Your task to perform on an android device: find snoozed emails in the gmail app Image 0: 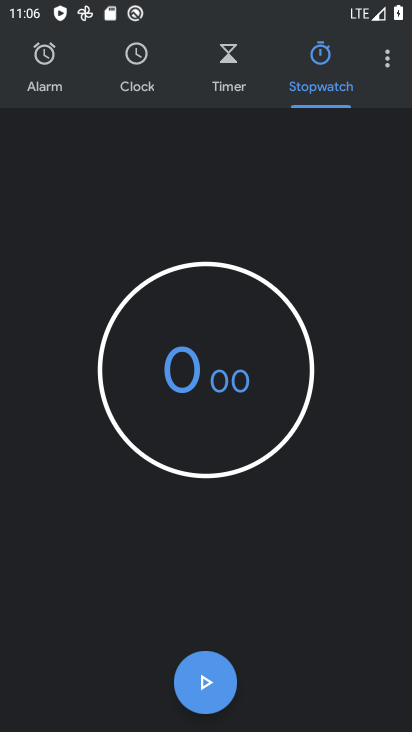
Step 0: press home button
Your task to perform on an android device: find snoozed emails in the gmail app Image 1: 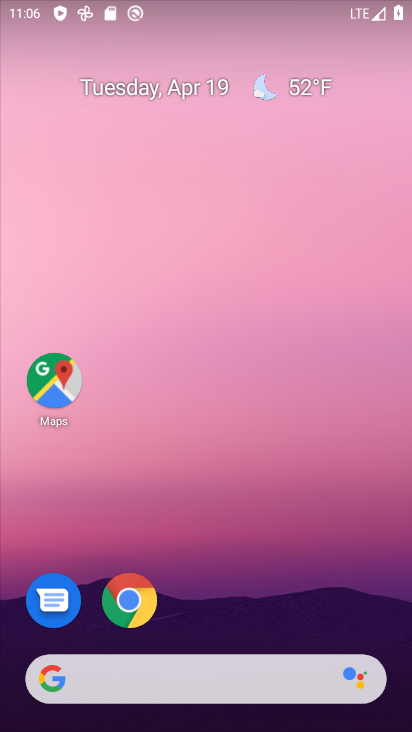
Step 1: drag from (313, 616) to (211, 71)
Your task to perform on an android device: find snoozed emails in the gmail app Image 2: 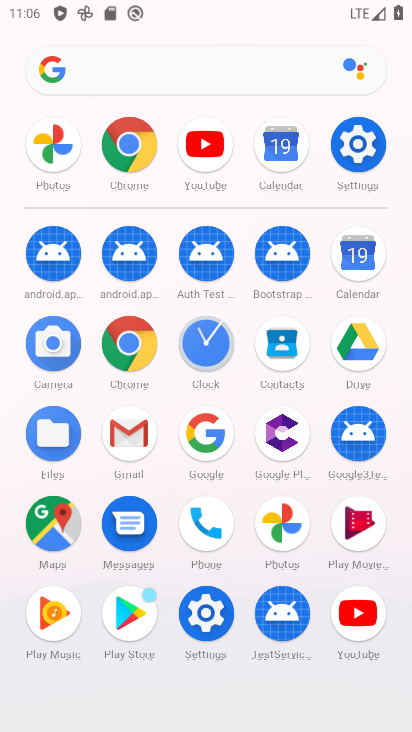
Step 2: click (139, 443)
Your task to perform on an android device: find snoozed emails in the gmail app Image 3: 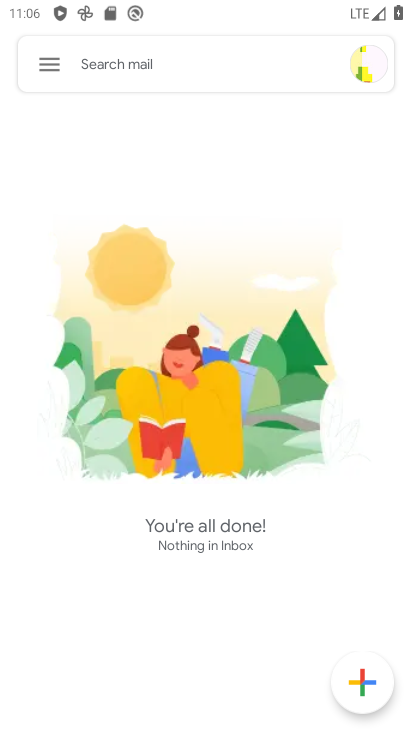
Step 3: click (51, 66)
Your task to perform on an android device: find snoozed emails in the gmail app Image 4: 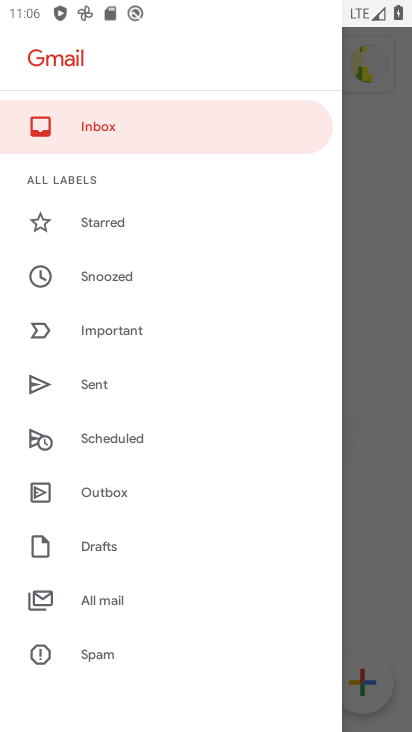
Step 4: click (143, 285)
Your task to perform on an android device: find snoozed emails in the gmail app Image 5: 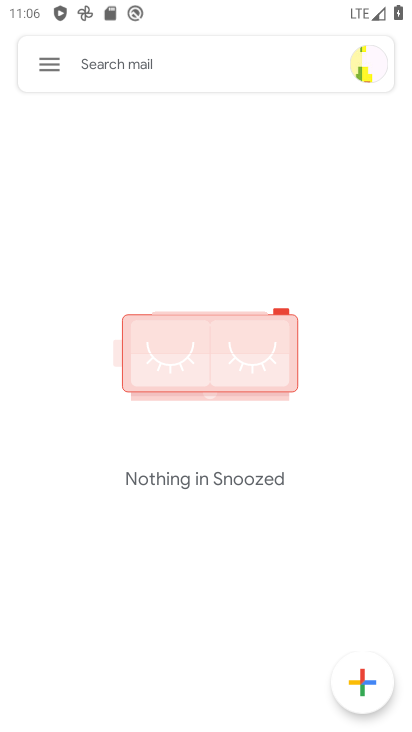
Step 5: task complete